Your task to perform on an android device: move a message to another label in the gmail app Image 0: 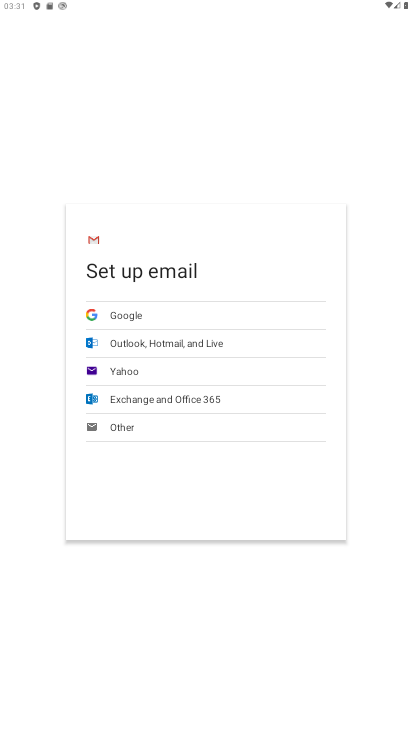
Step 0: press home button
Your task to perform on an android device: move a message to another label in the gmail app Image 1: 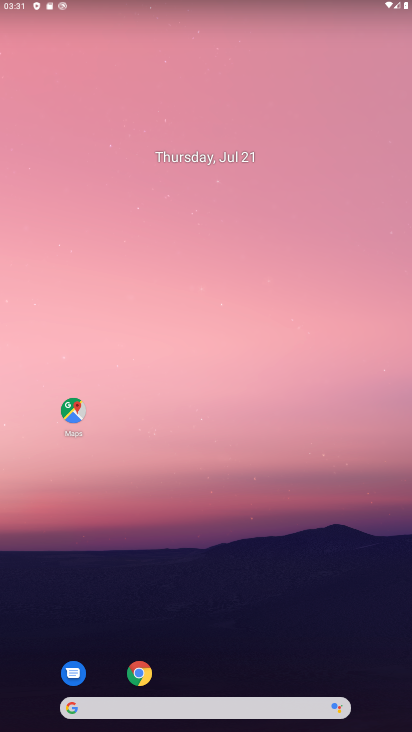
Step 1: drag from (308, 547) to (236, 72)
Your task to perform on an android device: move a message to another label in the gmail app Image 2: 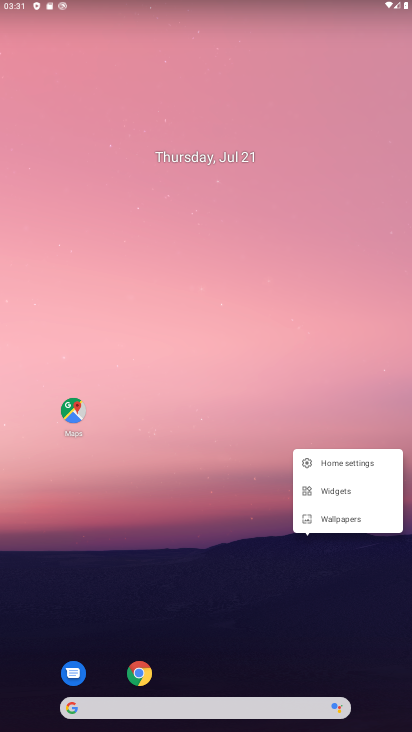
Step 2: click (194, 402)
Your task to perform on an android device: move a message to another label in the gmail app Image 3: 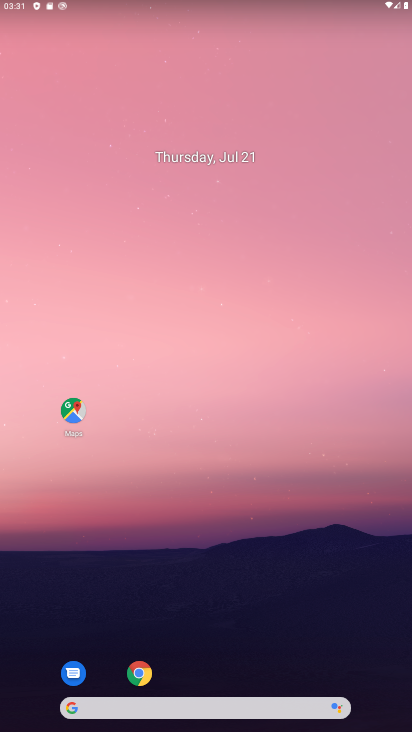
Step 3: drag from (317, 607) to (313, 120)
Your task to perform on an android device: move a message to another label in the gmail app Image 4: 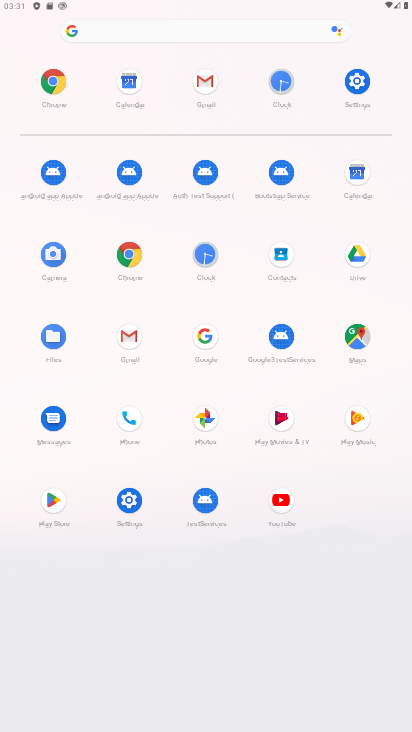
Step 4: click (206, 83)
Your task to perform on an android device: move a message to another label in the gmail app Image 5: 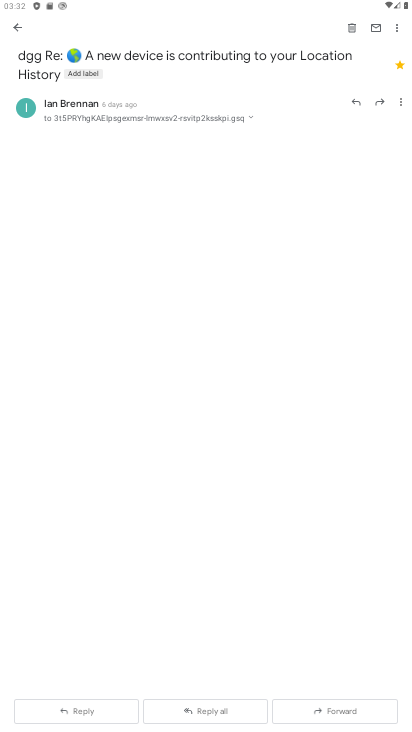
Step 5: drag from (21, 29) to (306, 284)
Your task to perform on an android device: move a message to another label in the gmail app Image 6: 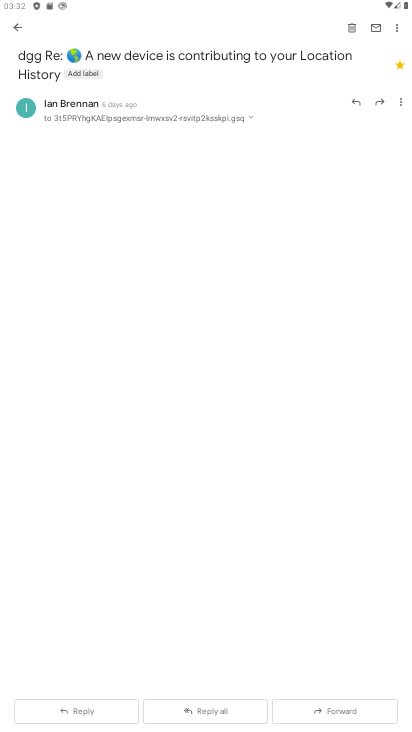
Step 6: click (396, 21)
Your task to perform on an android device: move a message to another label in the gmail app Image 7: 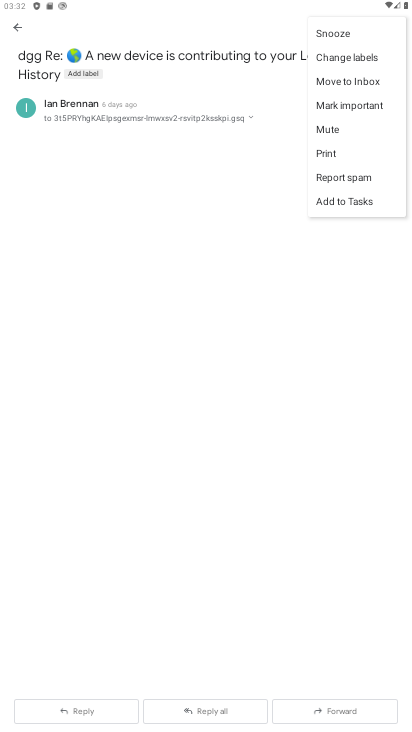
Step 7: click (368, 56)
Your task to perform on an android device: move a message to another label in the gmail app Image 8: 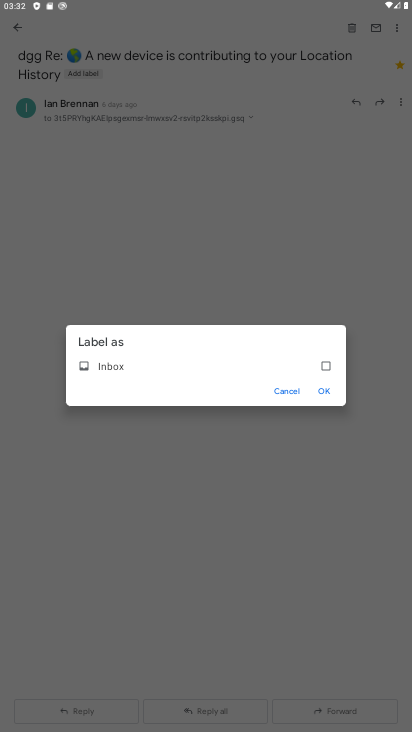
Step 8: click (325, 367)
Your task to perform on an android device: move a message to another label in the gmail app Image 9: 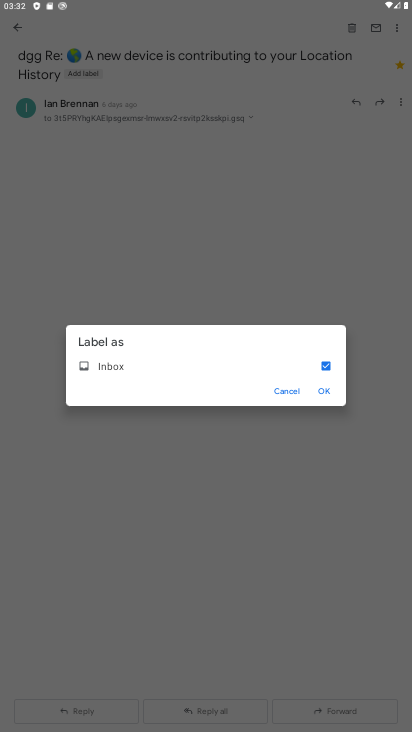
Step 9: click (328, 386)
Your task to perform on an android device: move a message to another label in the gmail app Image 10: 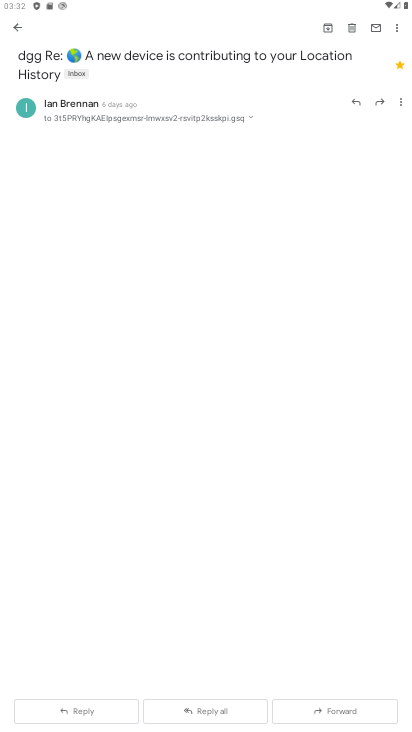
Step 10: task complete